Your task to perform on an android device: change the clock display to analog Image 0: 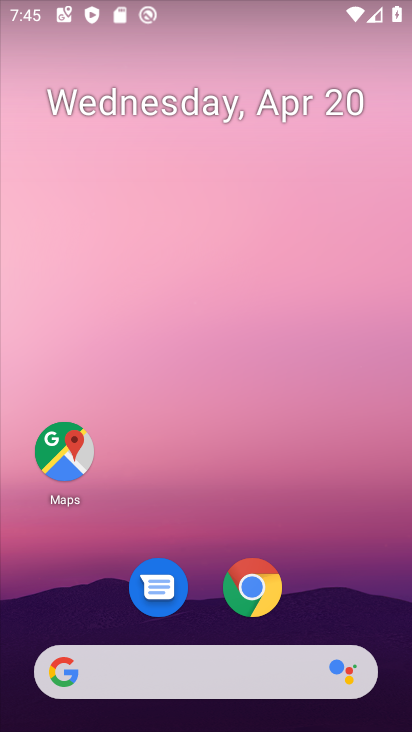
Step 0: drag from (362, 592) to (363, 184)
Your task to perform on an android device: change the clock display to analog Image 1: 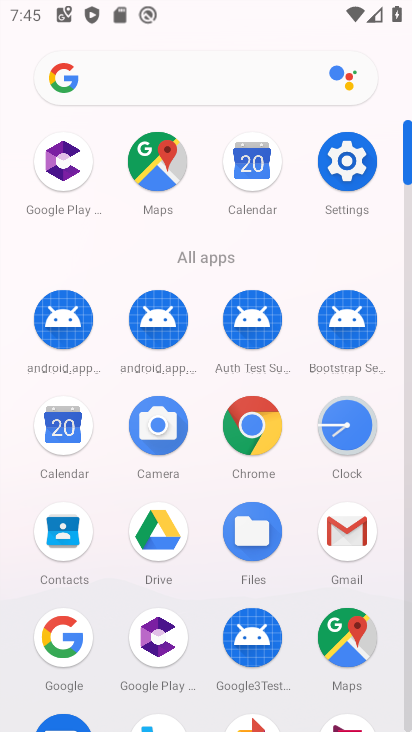
Step 1: click (355, 427)
Your task to perform on an android device: change the clock display to analog Image 2: 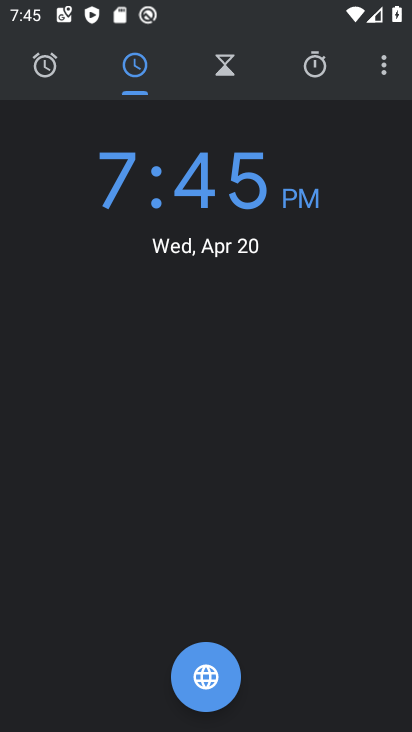
Step 2: click (384, 69)
Your task to perform on an android device: change the clock display to analog Image 3: 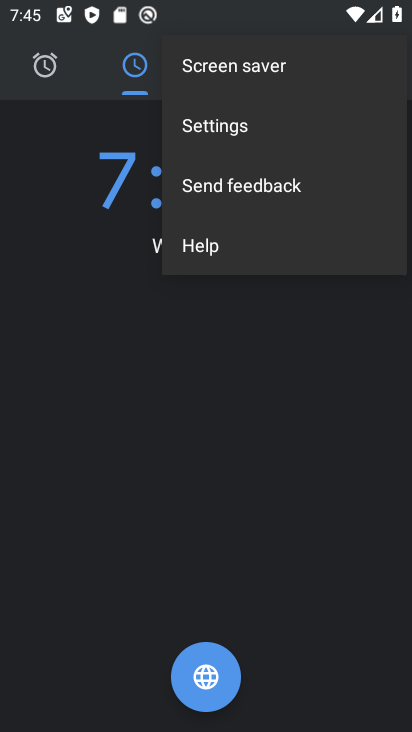
Step 3: click (232, 121)
Your task to perform on an android device: change the clock display to analog Image 4: 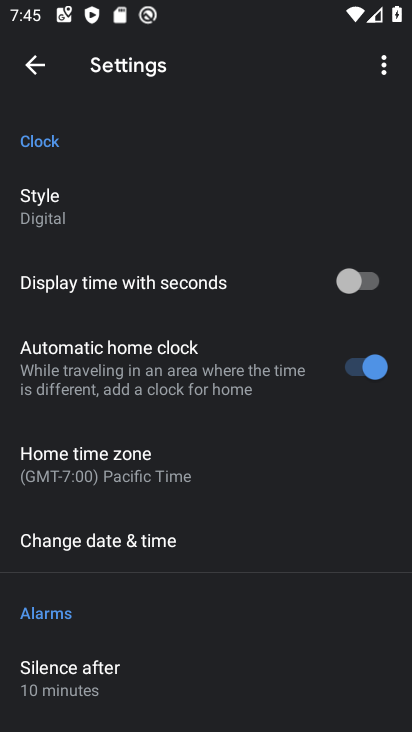
Step 4: drag from (272, 599) to (301, 394)
Your task to perform on an android device: change the clock display to analog Image 5: 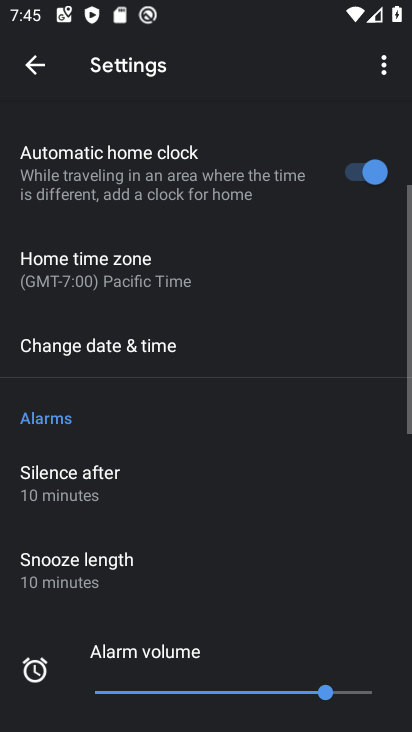
Step 5: drag from (300, 575) to (311, 371)
Your task to perform on an android device: change the clock display to analog Image 6: 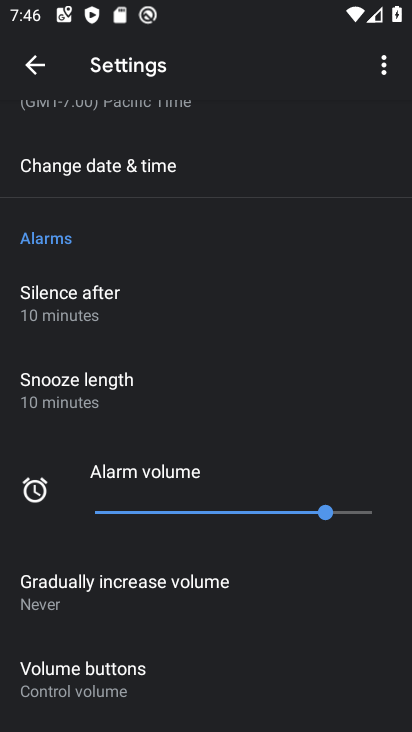
Step 6: drag from (303, 620) to (309, 404)
Your task to perform on an android device: change the clock display to analog Image 7: 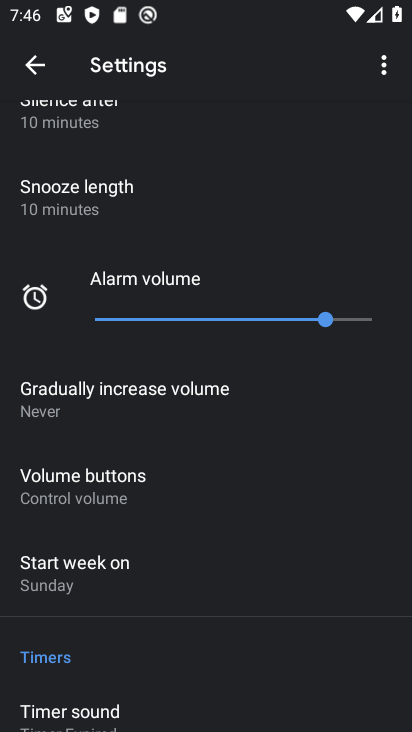
Step 7: drag from (309, 576) to (320, 411)
Your task to perform on an android device: change the clock display to analog Image 8: 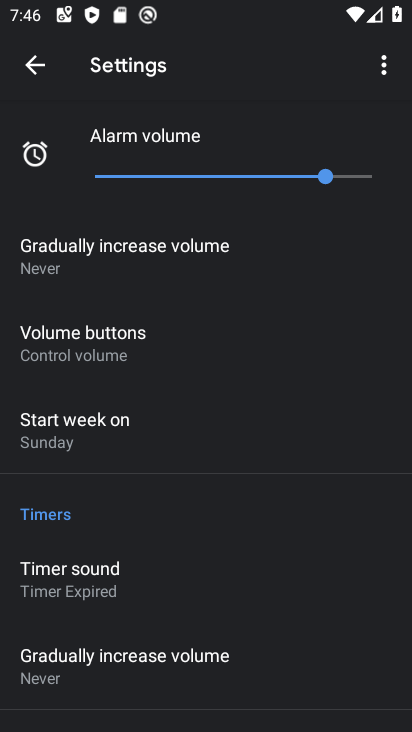
Step 8: drag from (304, 591) to (306, 384)
Your task to perform on an android device: change the clock display to analog Image 9: 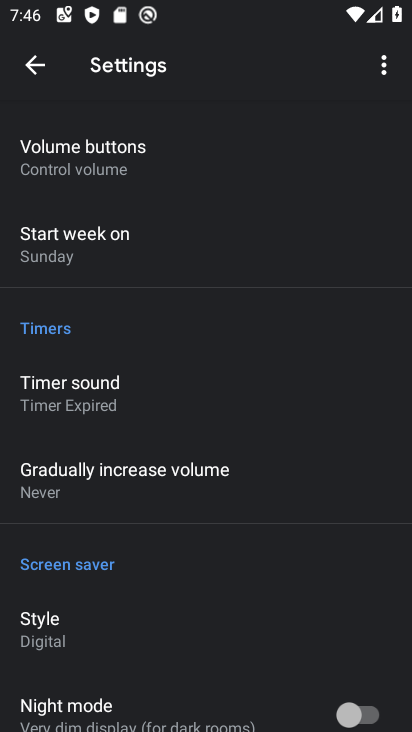
Step 9: drag from (286, 584) to (295, 417)
Your task to perform on an android device: change the clock display to analog Image 10: 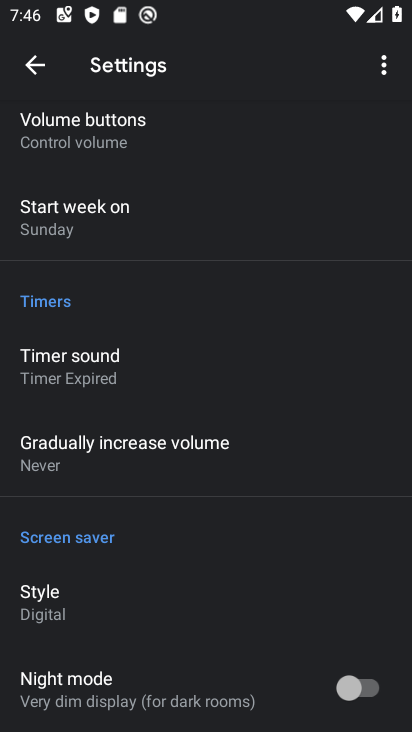
Step 10: drag from (307, 292) to (290, 466)
Your task to perform on an android device: change the clock display to analog Image 11: 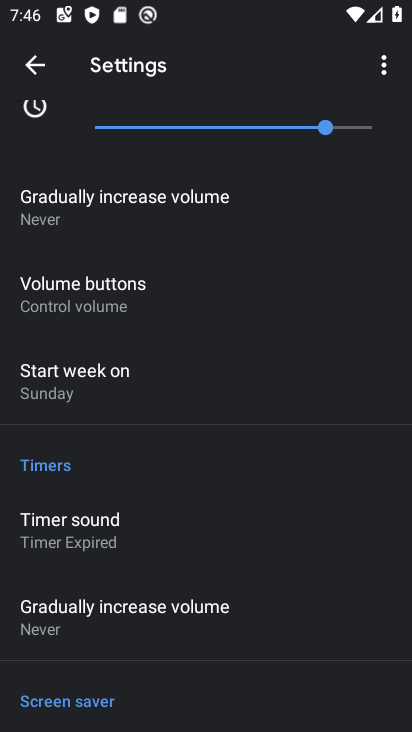
Step 11: drag from (306, 301) to (285, 474)
Your task to perform on an android device: change the clock display to analog Image 12: 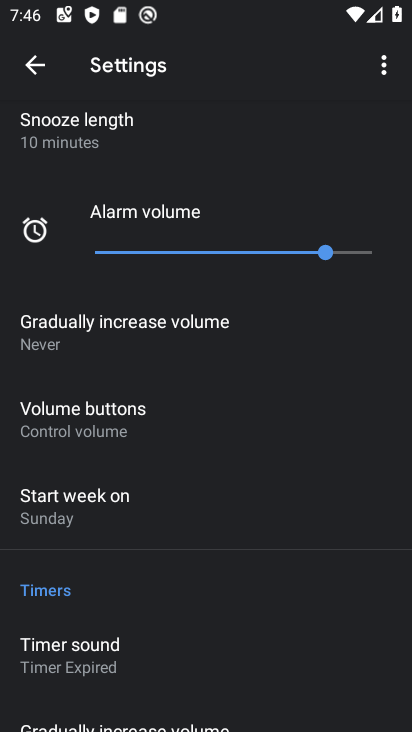
Step 12: drag from (296, 203) to (269, 470)
Your task to perform on an android device: change the clock display to analog Image 13: 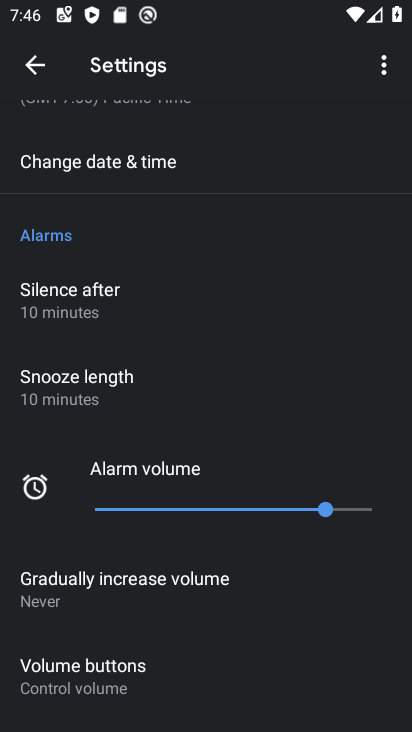
Step 13: drag from (268, 178) to (253, 414)
Your task to perform on an android device: change the clock display to analog Image 14: 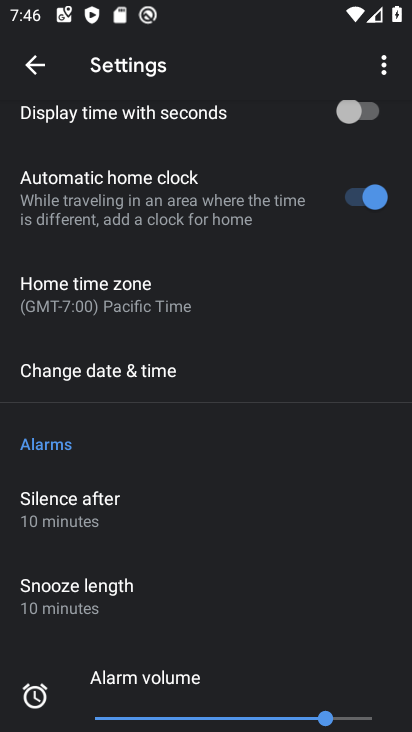
Step 14: drag from (283, 159) to (266, 414)
Your task to perform on an android device: change the clock display to analog Image 15: 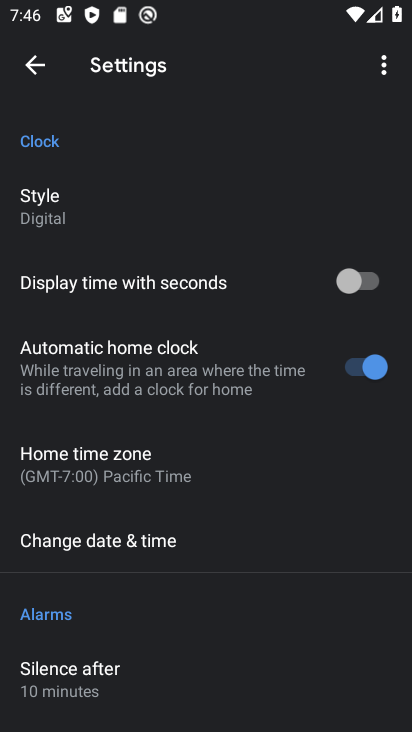
Step 15: click (37, 208)
Your task to perform on an android device: change the clock display to analog Image 16: 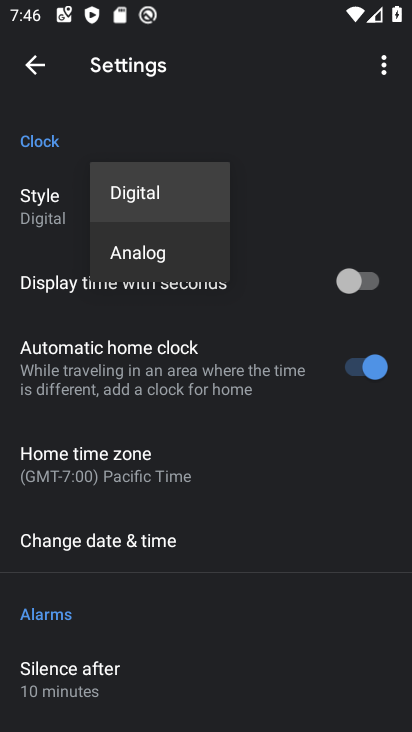
Step 16: click (154, 258)
Your task to perform on an android device: change the clock display to analog Image 17: 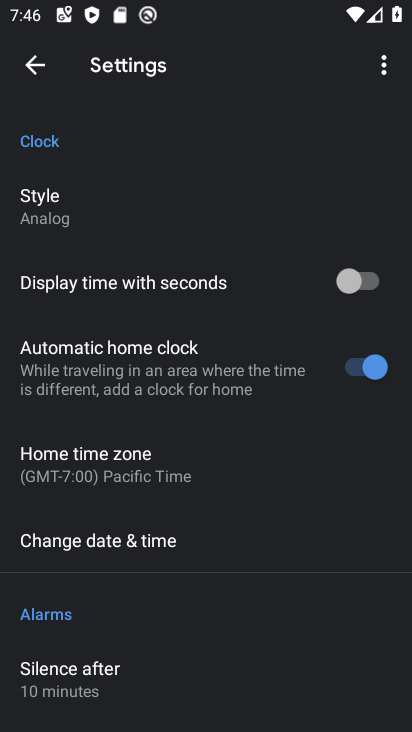
Step 17: task complete